Your task to perform on an android device: Add rayovac triple a to the cart on bestbuy.com Image 0: 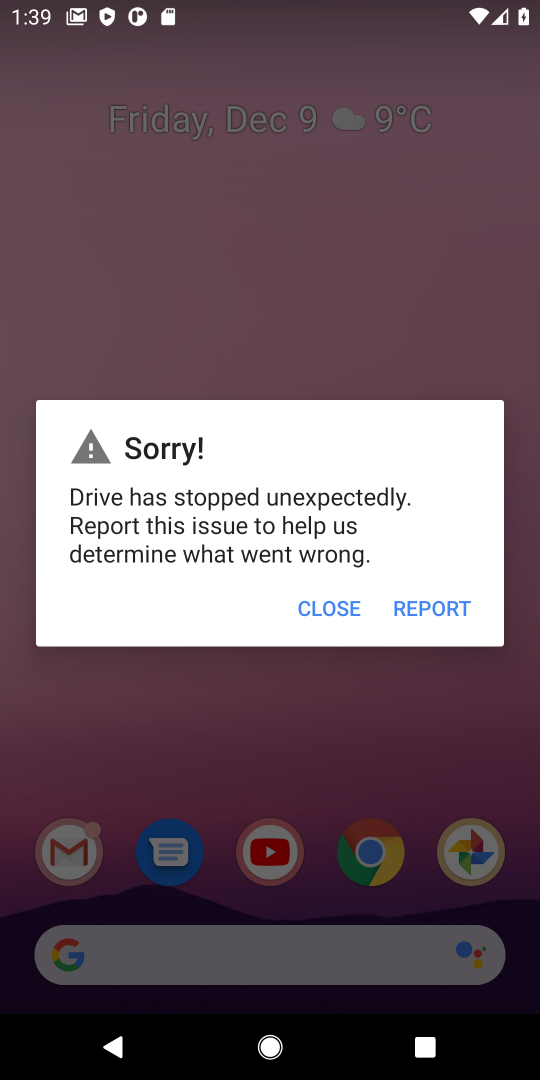
Step 0: press home button
Your task to perform on an android device: Add rayovac triple a to the cart on bestbuy.com Image 1: 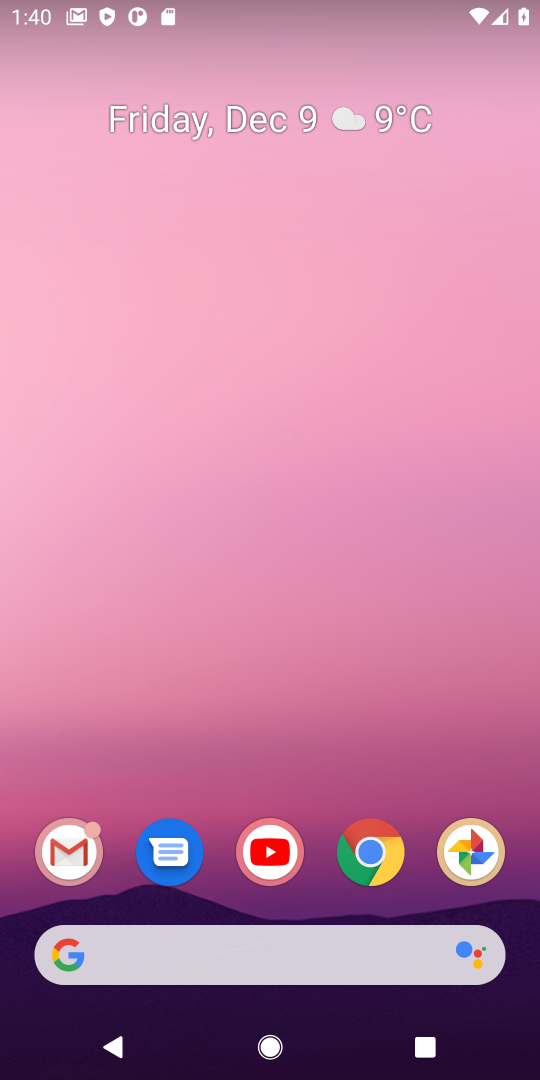
Step 1: click (382, 860)
Your task to perform on an android device: Add rayovac triple a to the cart on bestbuy.com Image 2: 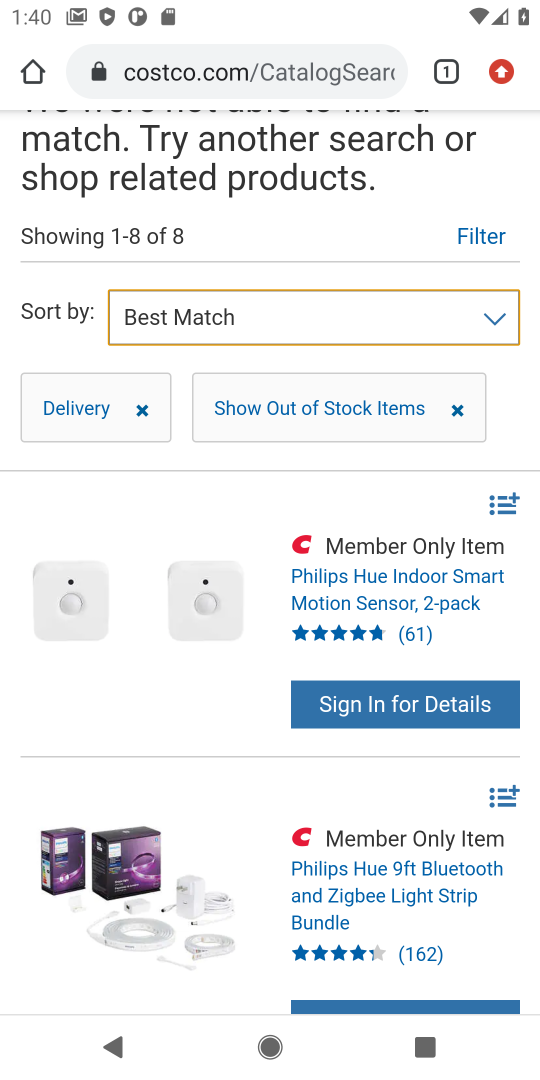
Step 2: click (269, 75)
Your task to perform on an android device: Add rayovac triple a to the cart on bestbuy.com Image 3: 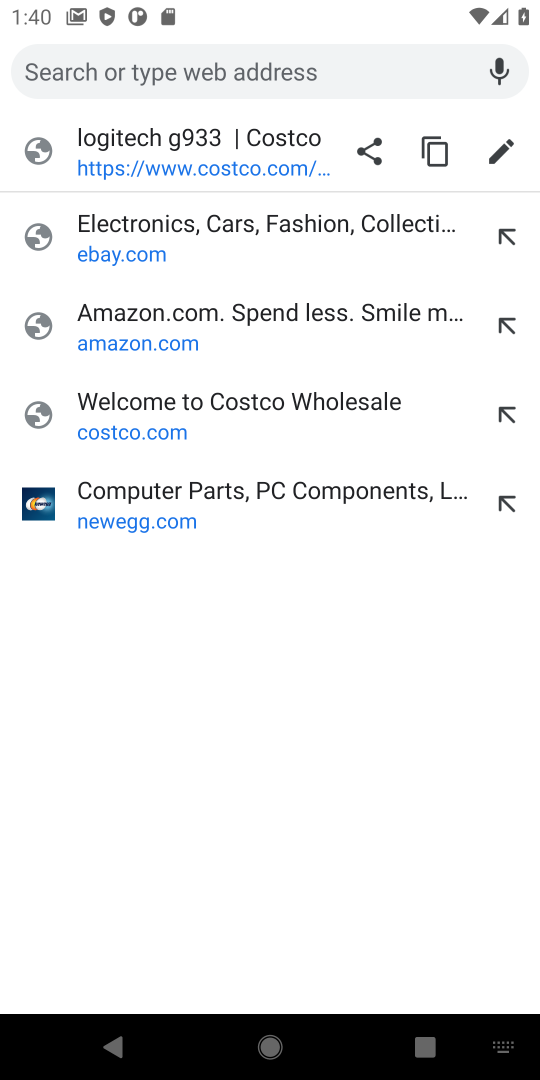
Step 3: press enter
Your task to perform on an android device: Add rayovac triple a to the cart on bestbuy.com Image 4: 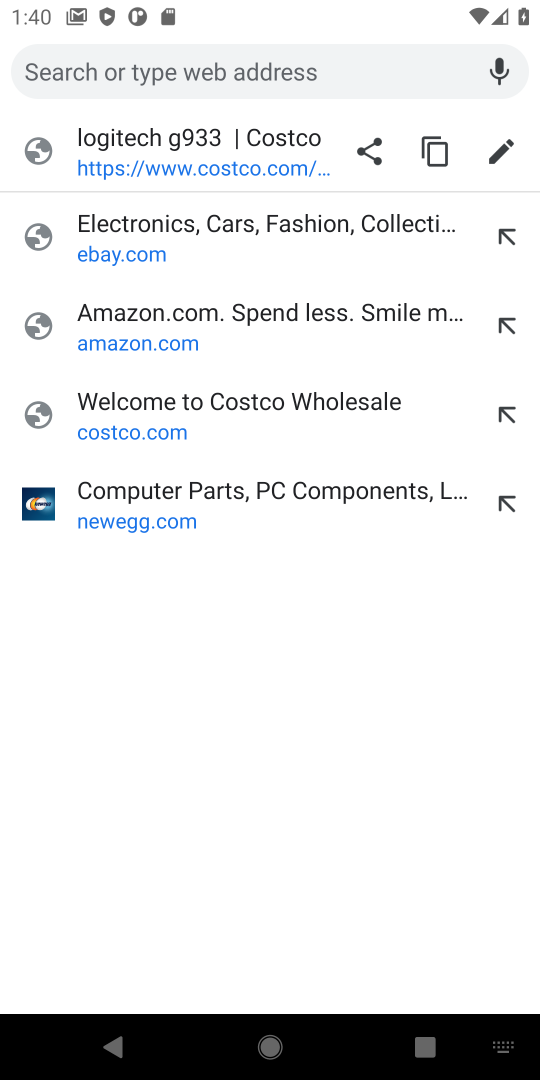
Step 4: type "logitech g933"
Your task to perform on an android device: Add rayovac triple a to the cart on bestbuy.com Image 5: 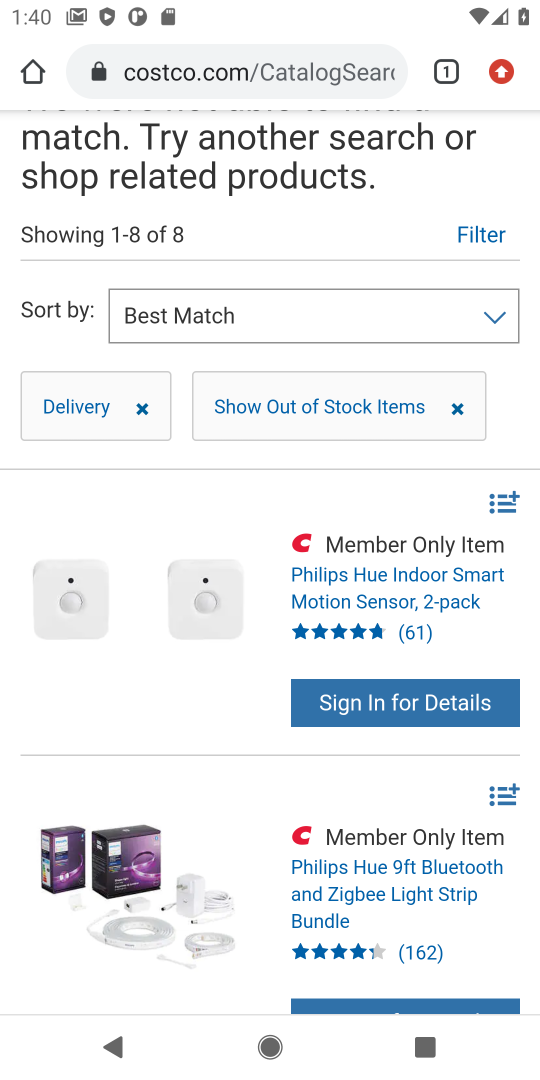
Step 5: click (184, 71)
Your task to perform on an android device: Add rayovac triple a to the cart on bestbuy.com Image 6: 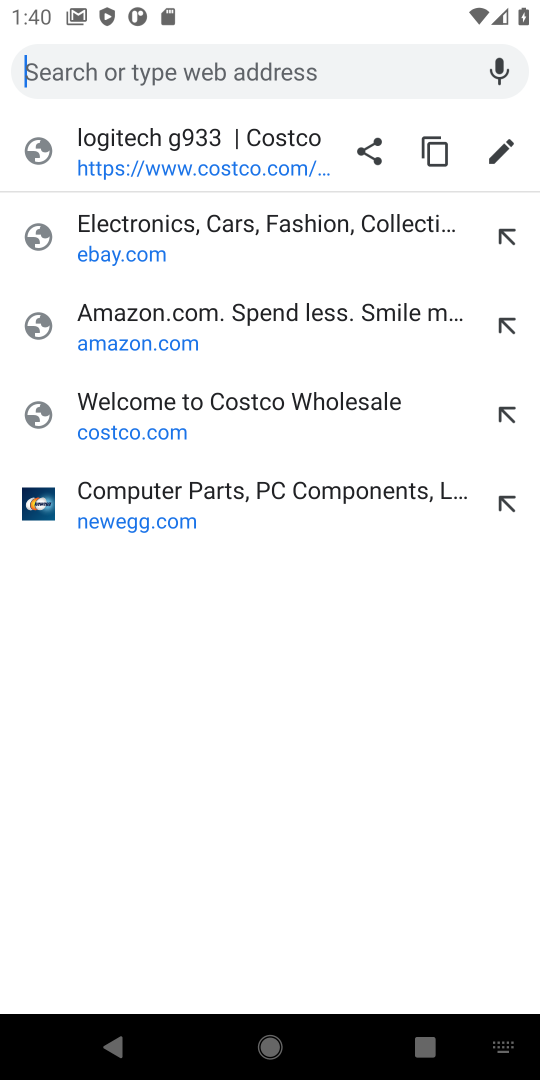
Step 6: press enter
Your task to perform on an android device: Add rayovac triple a to the cart on bestbuy.com Image 7: 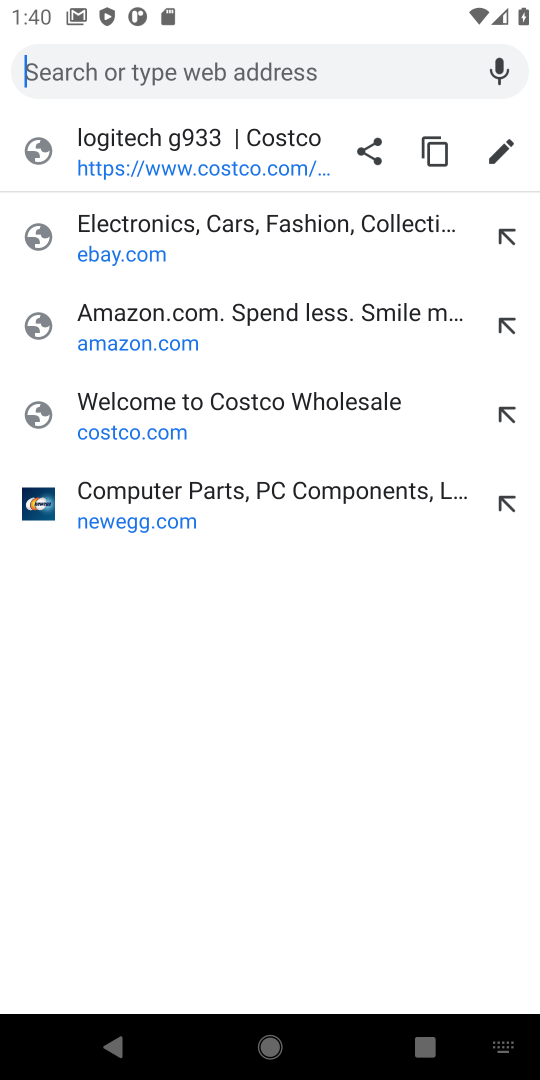
Step 7: type "bestbuy.com"
Your task to perform on an android device: Add rayovac triple a to the cart on bestbuy.com Image 8: 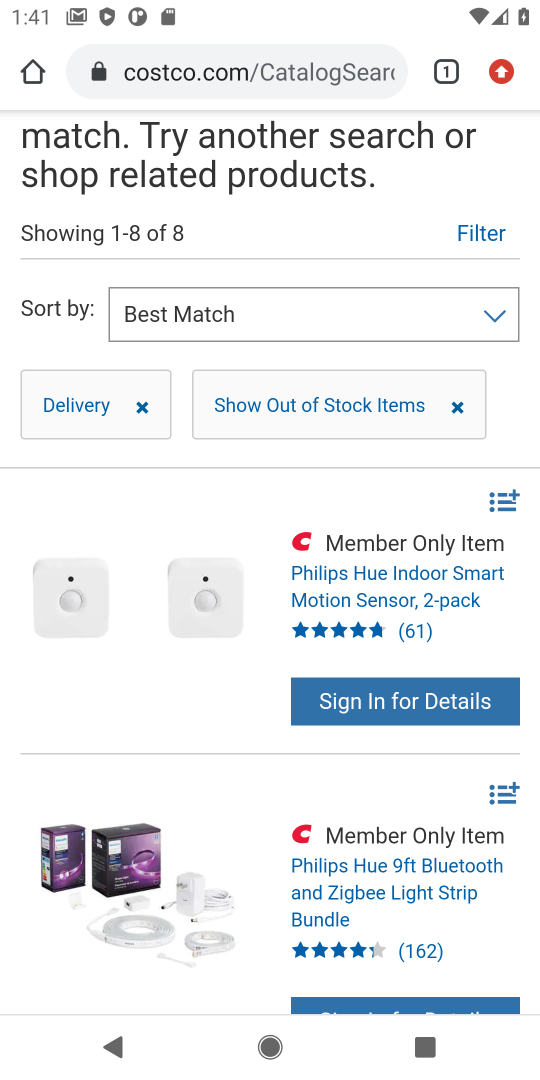
Step 8: click (287, 64)
Your task to perform on an android device: Add rayovac triple a to the cart on bestbuy.com Image 9: 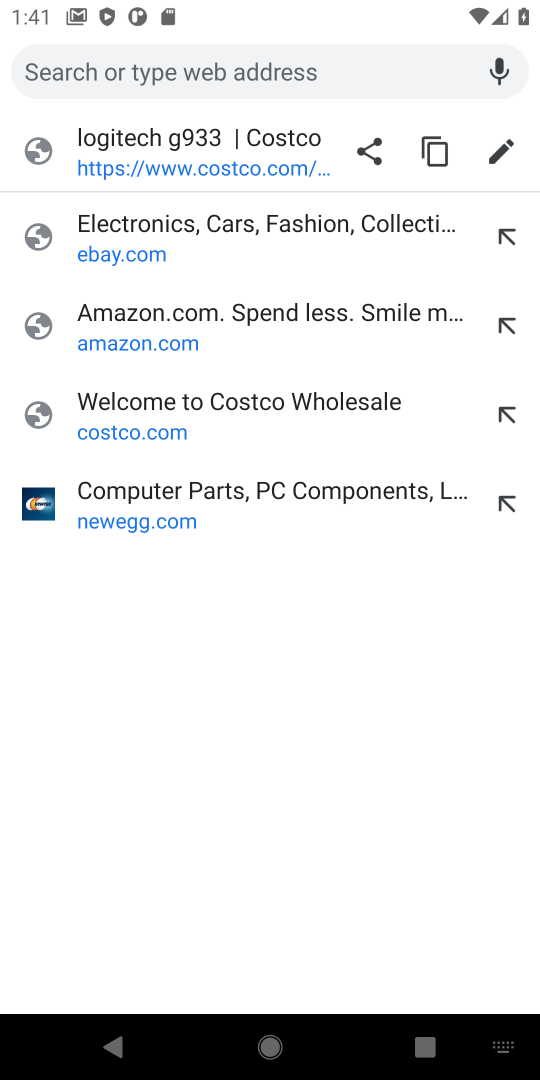
Step 9: press enter
Your task to perform on an android device: Add rayovac triple a to the cart on bestbuy.com Image 10: 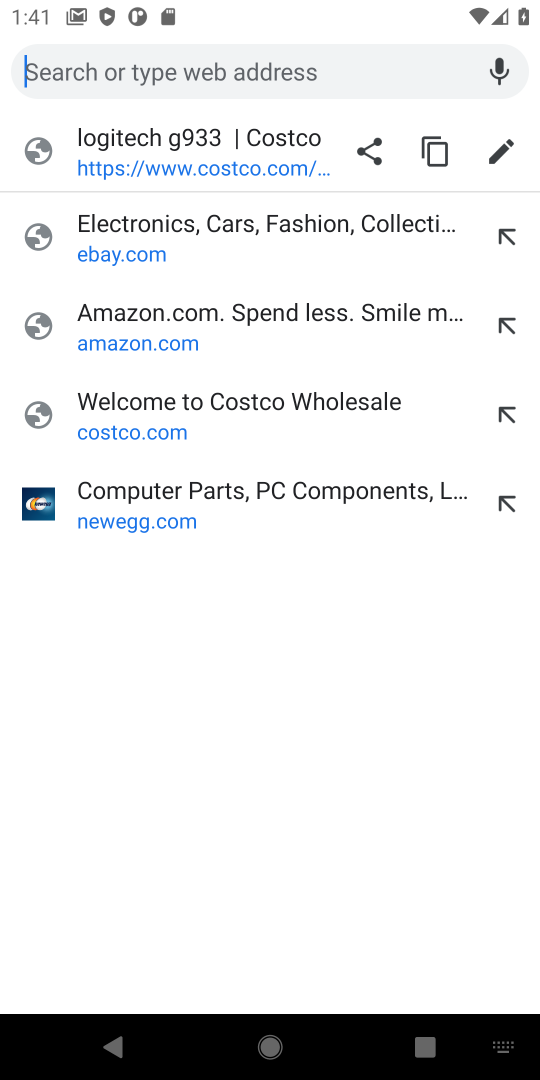
Step 10: type "bestbuy.com"
Your task to perform on an android device: Add rayovac triple a to the cart on bestbuy.com Image 11: 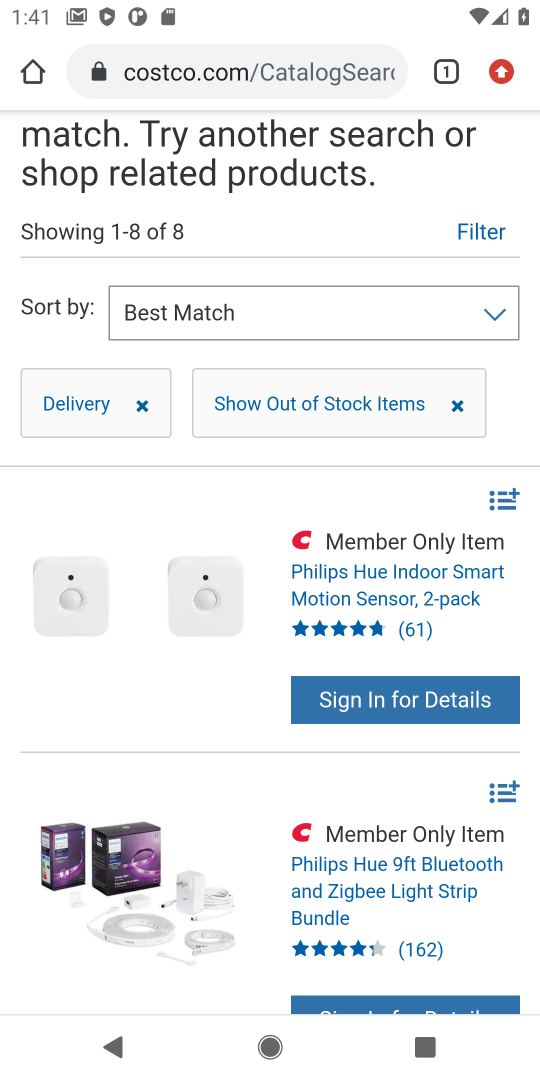
Step 11: click (28, 71)
Your task to perform on an android device: Add rayovac triple a to the cart on bestbuy.com Image 12: 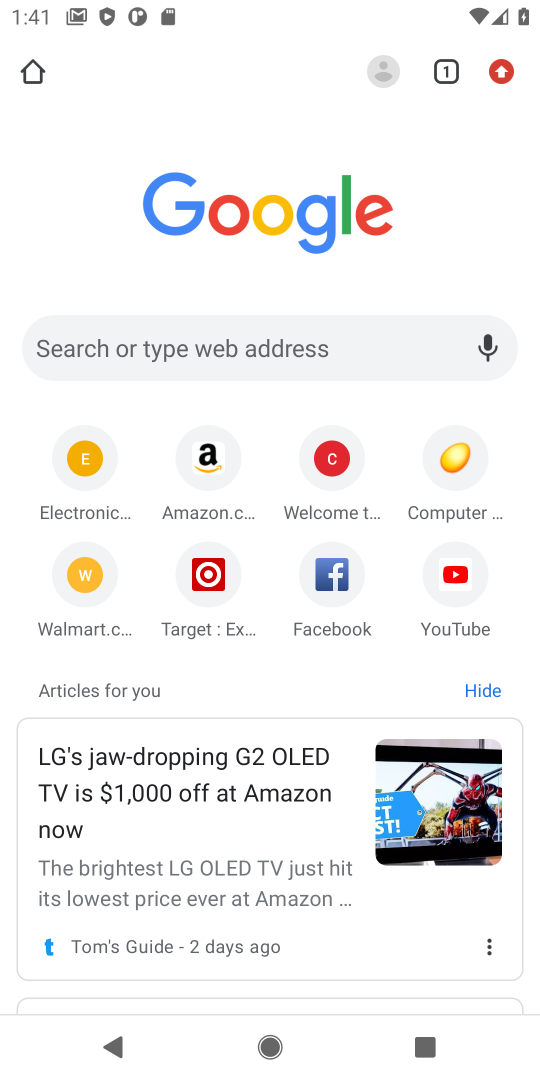
Step 12: click (281, 335)
Your task to perform on an android device: Add rayovac triple a to the cart on bestbuy.com Image 13: 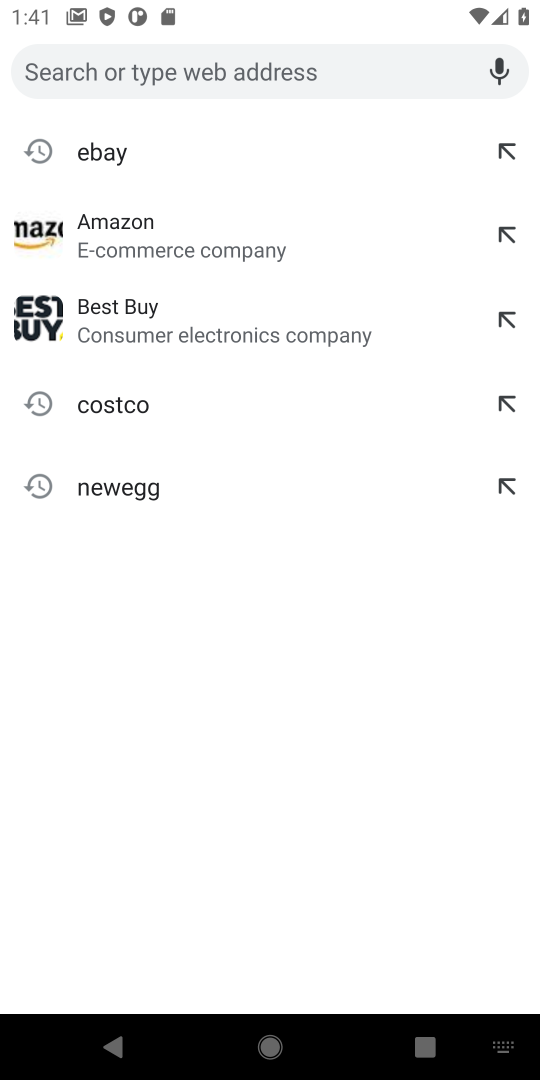
Step 13: click (132, 297)
Your task to perform on an android device: Add rayovac triple a to the cart on bestbuy.com Image 14: 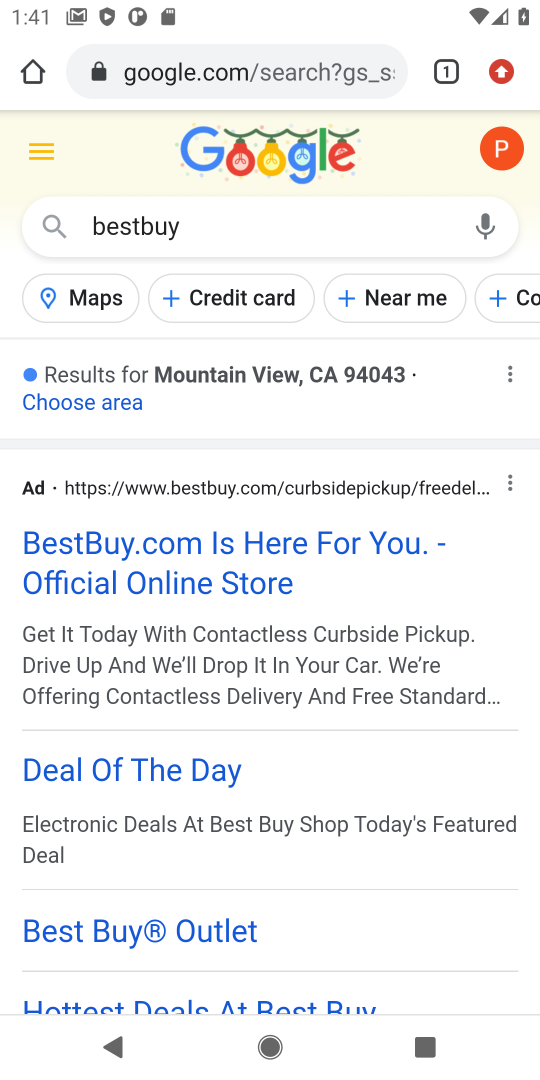
Step 14: drag from (152, 750) to (312, 272)
Your task to perform on an android device: Add rayovac triple a to the cart on bestbuy.com Image 15: 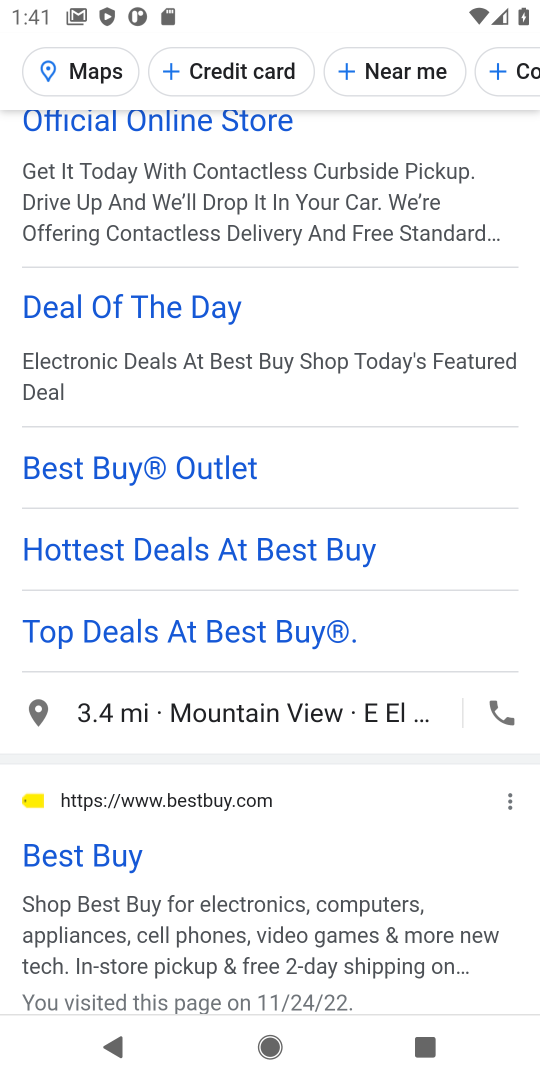
Step 15: click (232, 797)
Your task to perform on an android device: Add rayovac triple a to the cart on bestbuy.com Image 16: 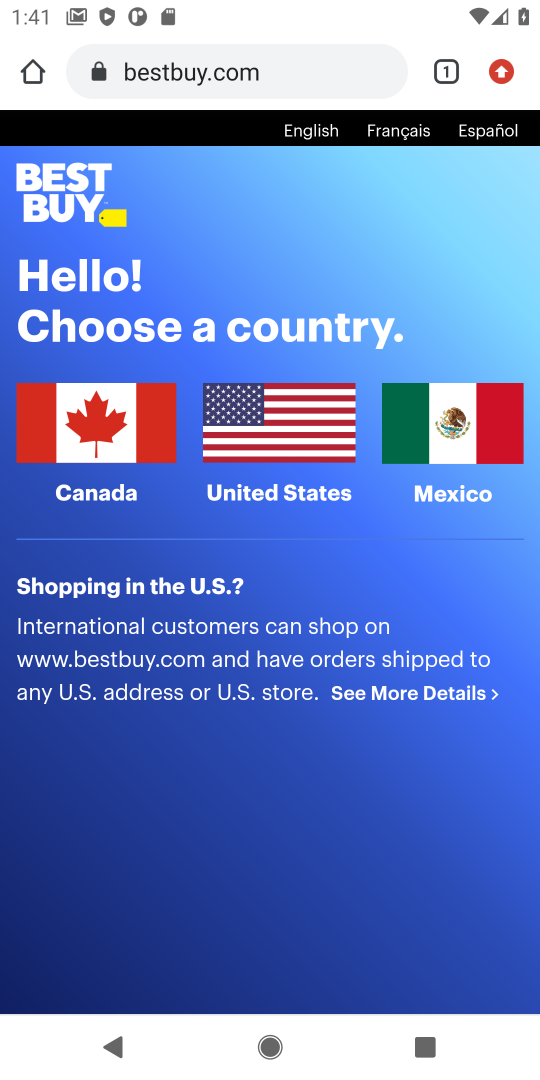
Step 16: click (315, 414)
Your task to perform on an android device: Add rayovac triple a to the cart on bestbuy.com Image 17: 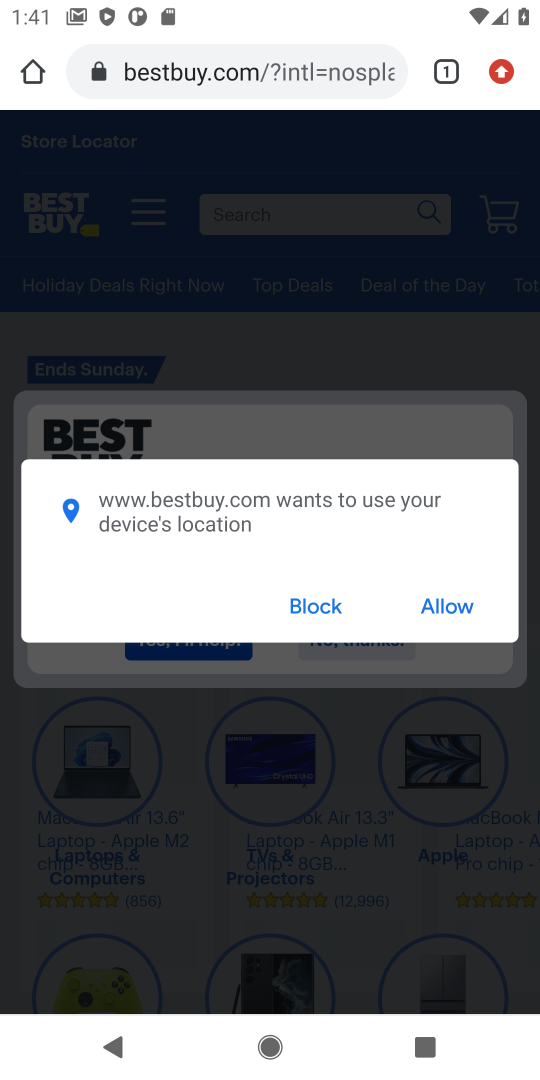
Step 17: click (323, 591)
Your task to perform on an android device: Add rayovac triple a to the cart on bestbuy.com Image 18: 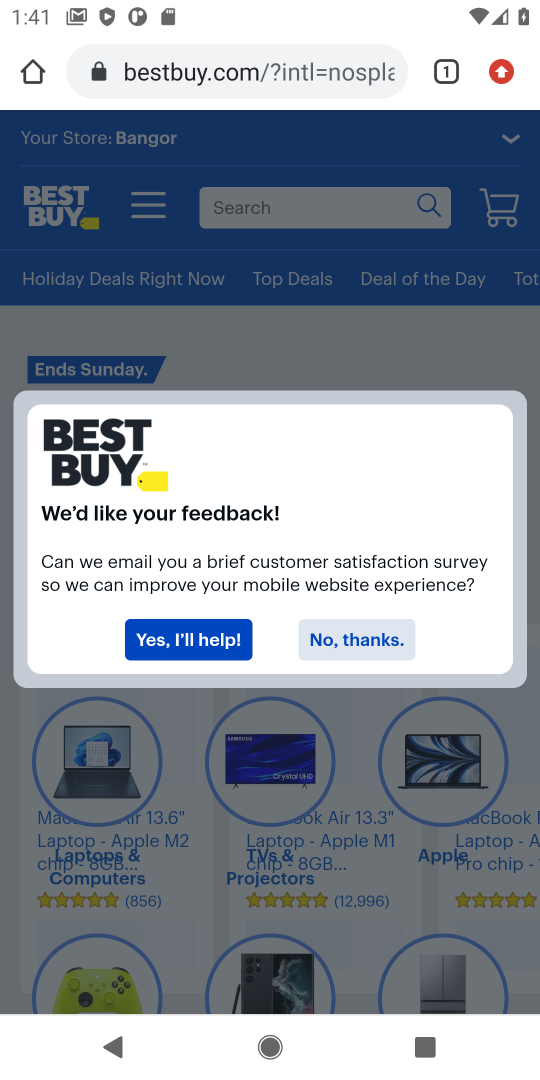
Step 18: click (386, 636)
Your task to perform on an android device: Add rayovac triple a to the cart on bestbuy.com Image 19: 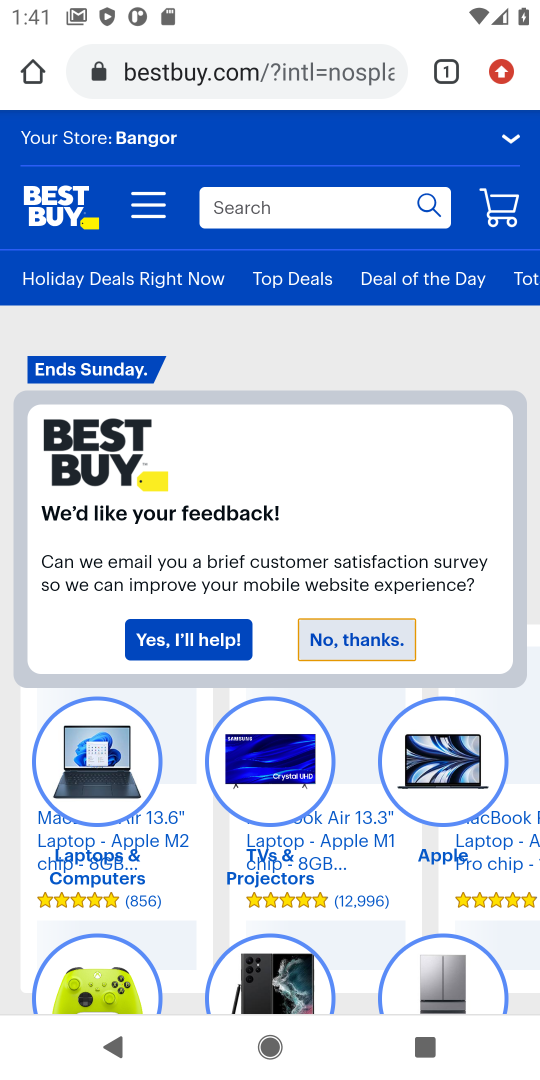
Step 19: click (356, 201)
Your task to perform on an android device: Add rayovac triple a to the cart on bestbuy.com Image 20: 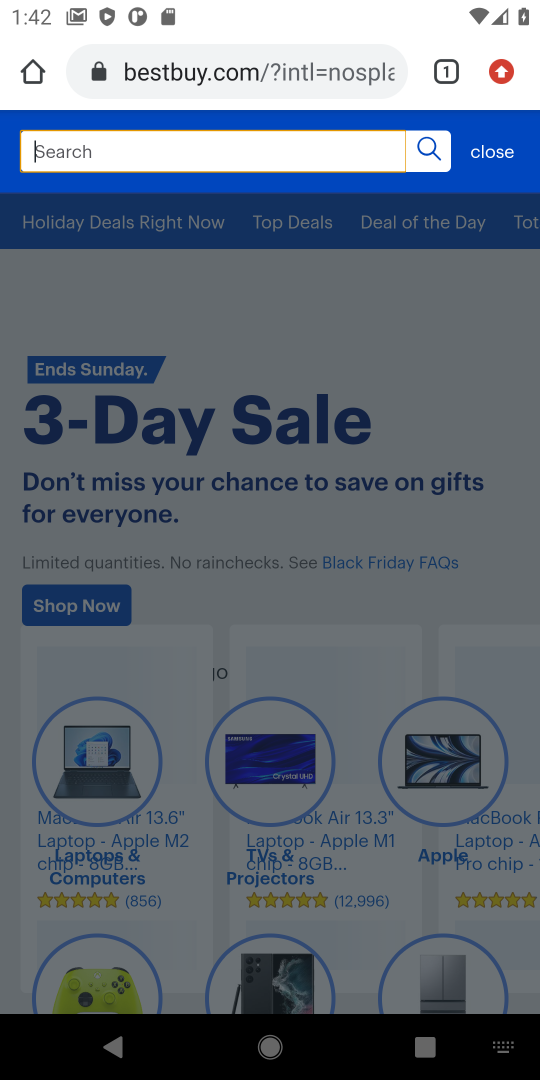
Step 20: type "rayovac triple a"
Your task to perform on an android device: Add rayovac triple a to the cart on bestbuy.com Image 21: 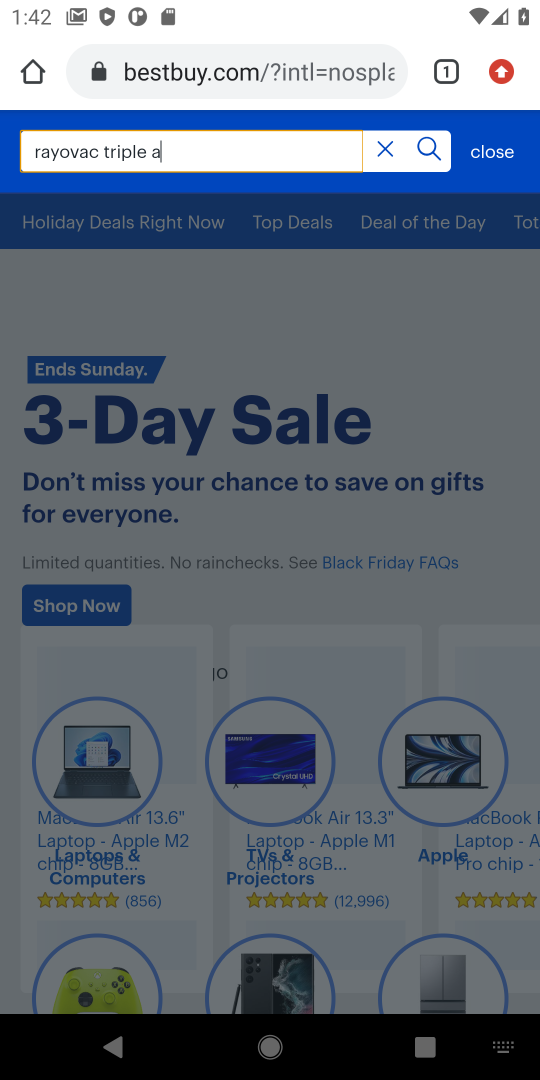
Step 21: press enter
Your task to perform on an android device: Add rayovac triple a to the cart on bestbuy.com Image 22: 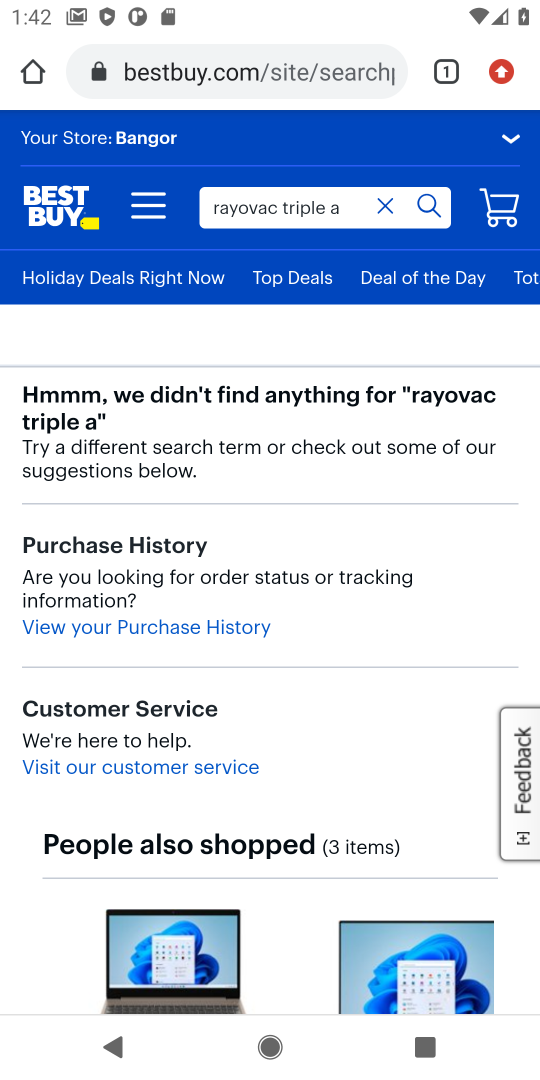
Step 22: click (428, 202)
Your task to perform on an android device: Add rayovac triple a to the cart on bestbuy.com Image 23: 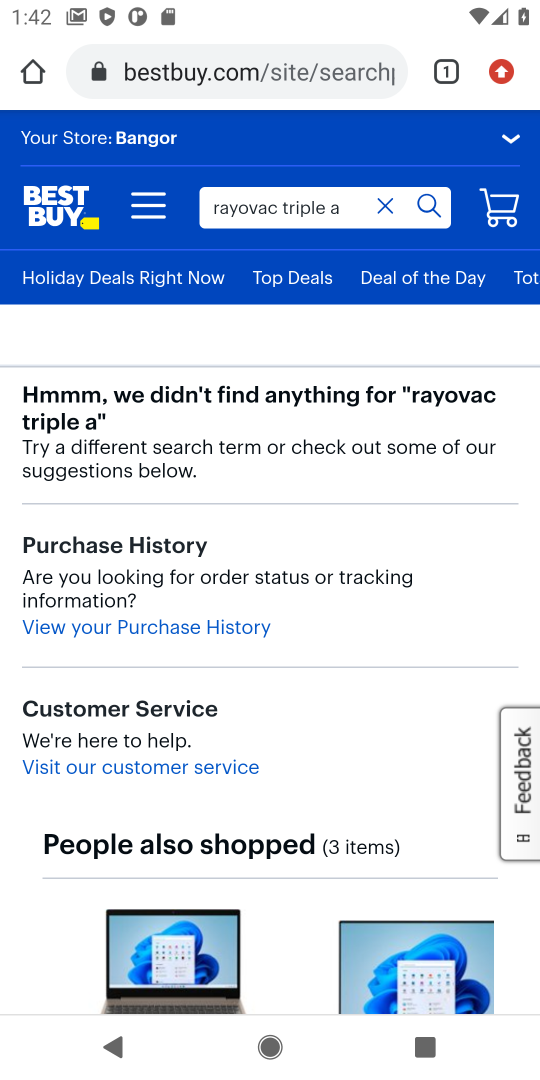
Step 23: task complete